Your task to perform on an android device: change the clock display to digital Image 0: 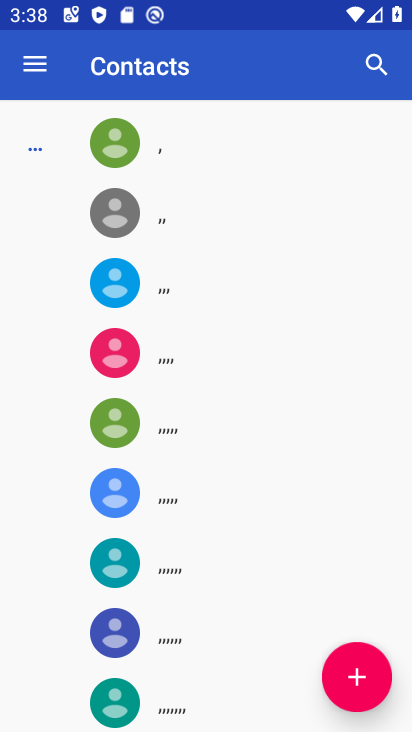
Step 0: press home button
Your task to perform on an android device: change the clock display to digital Image 1: 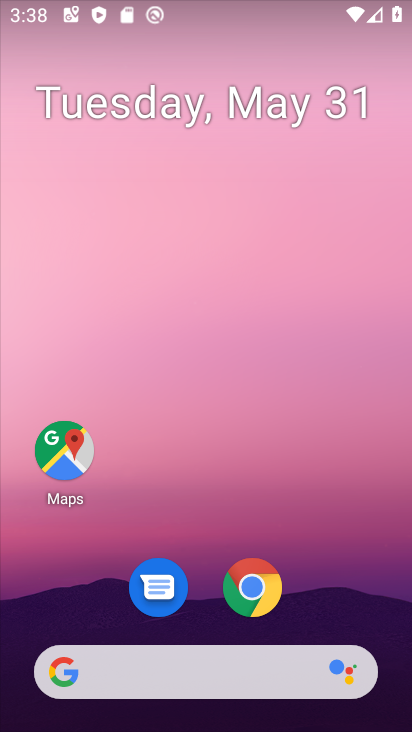
Step 1: drag from (310, 613) to (331, 35)
Your task to perform on an android device: change the clock display to digital Image 2: 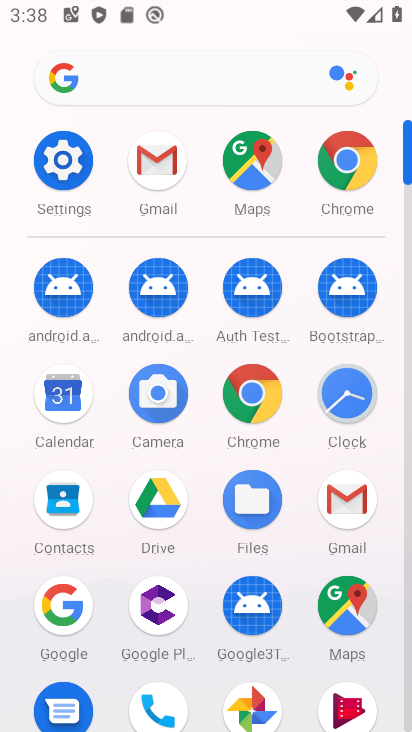
Step 2: click (350, 399)
Your task to perform on an android device: change the clock display to digital Image 3: 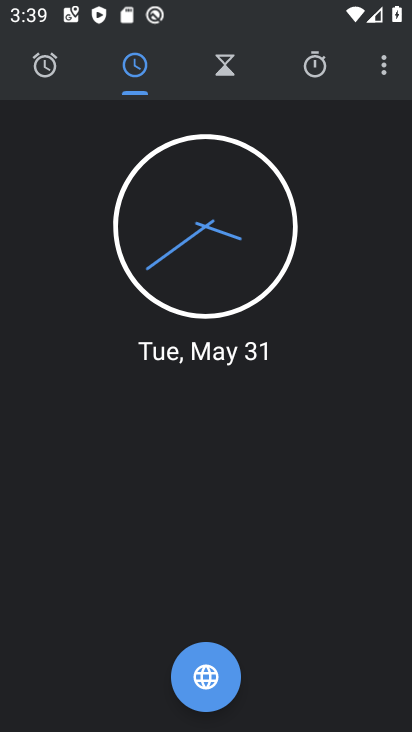
Step 3: click (376, 49)
Your task to perform on an android device: change the clock display to digital Image 4: 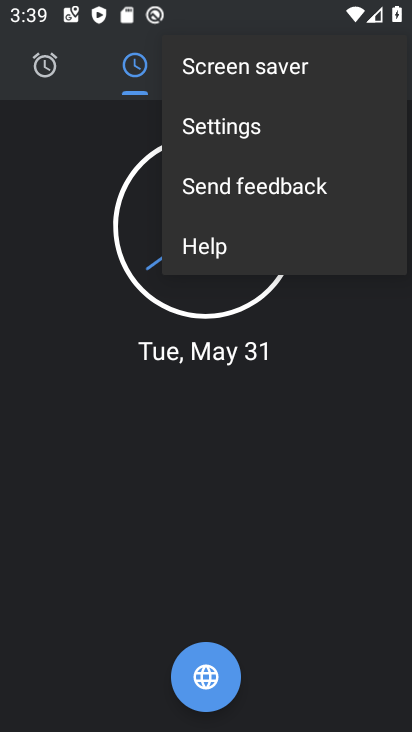
Step 4: click (223, 126)
Your task to perform on an android device: change the clock display to digital Image 5: 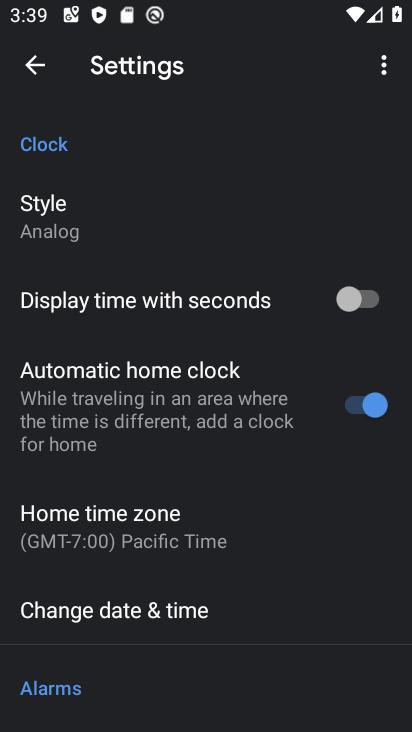
Step 5: click (35, 218)
Your task to perform on an android device: change the clock display to digital Image 6: 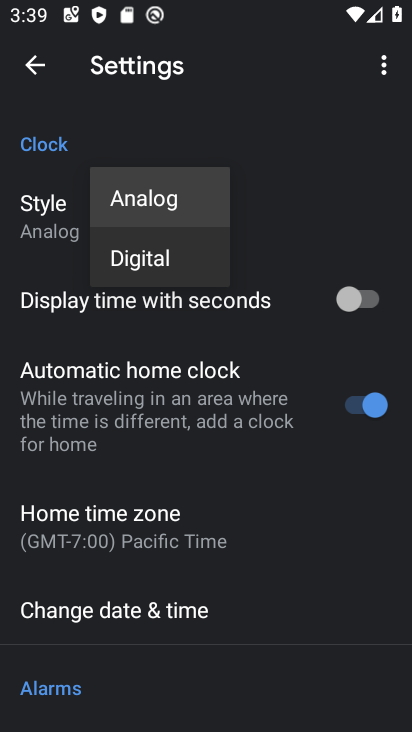
Step 6: click (151, 253)
Your task to perform on an android device: change the clock display to digital Image 7: 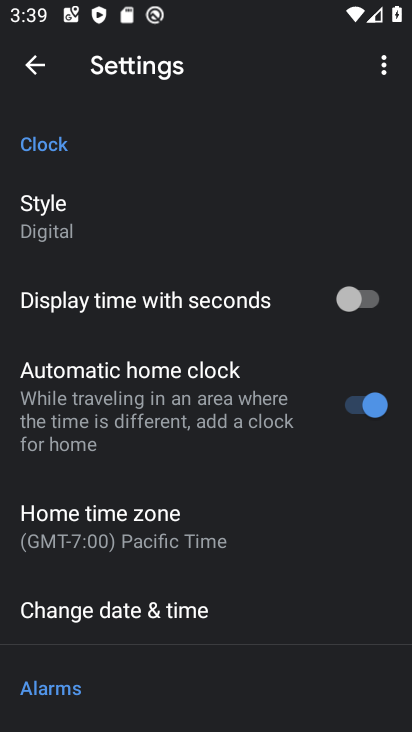
Step 7: task complete